Your task to perform on an android device: empty trash in the gmail app Image 0: 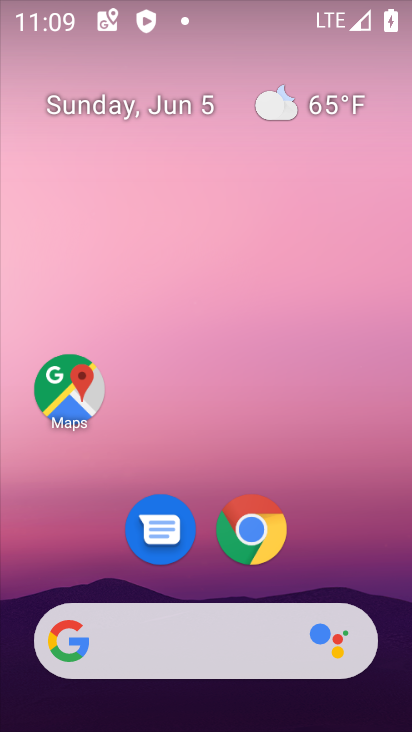
Step 0: drag from (263, 724) to (356, 22)
Your task to perform on an android device: empty trash in the gmail app Image 1: 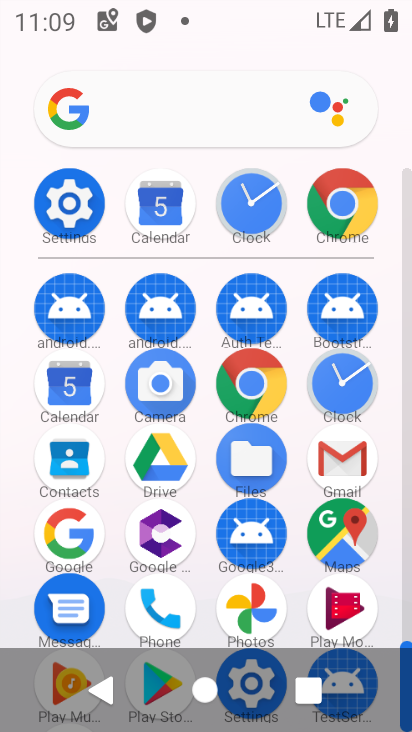
Step 1: click (349, 459)
Your task to perform on an android device: empty trash in the gmail app Image 2: 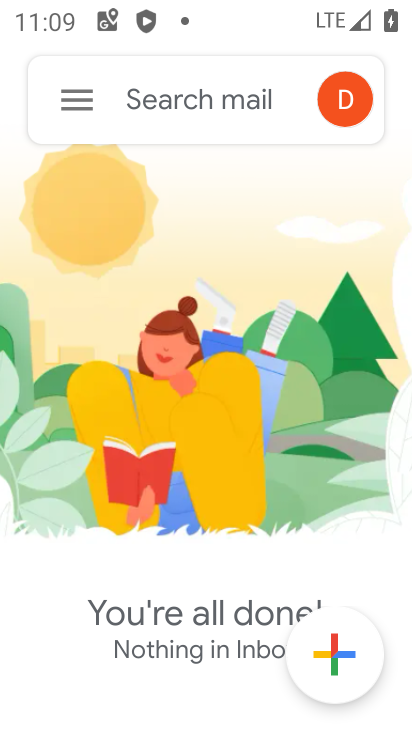
Step 2: click (78, 102)
Your task to perform on an android device: empty trash in the gmail app Image 3: 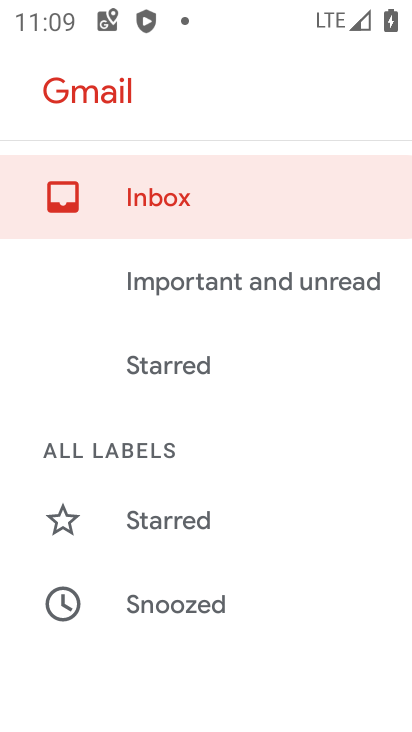
Step 3: drag from (261, 276) to (295, 724)
Your task to perform on an android device: empty trash in the gmail app Image 4: 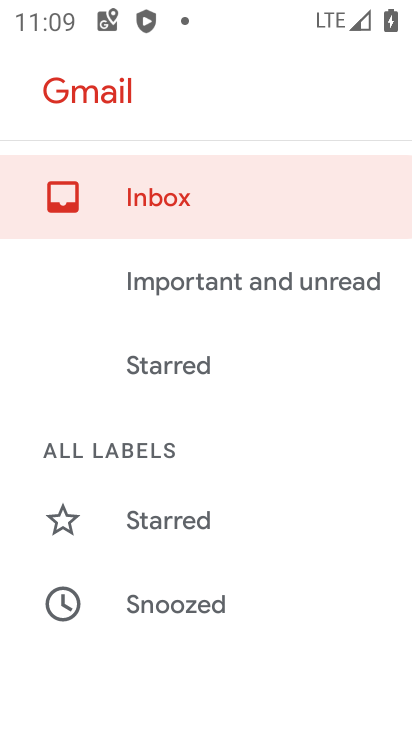
Step 4: drag from (299, 543) to (248, 46)
Your task to perform on an android device: empty trash in the gmail app Image 5: 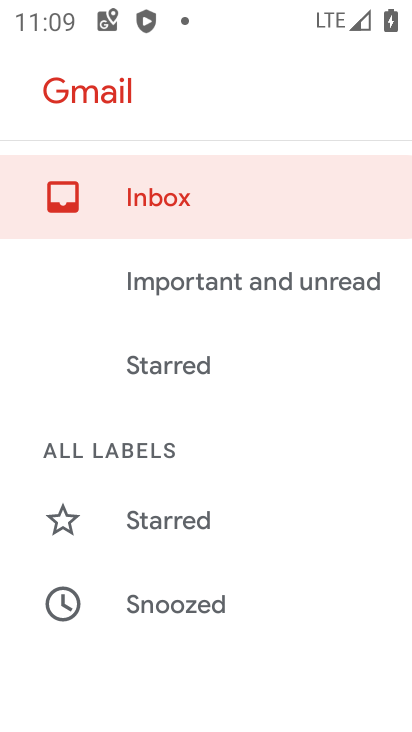
Step 5: drag from (234, 592) to (275, 11)
Your task to perform on an android device: empty trash in the gmail app Image 6: 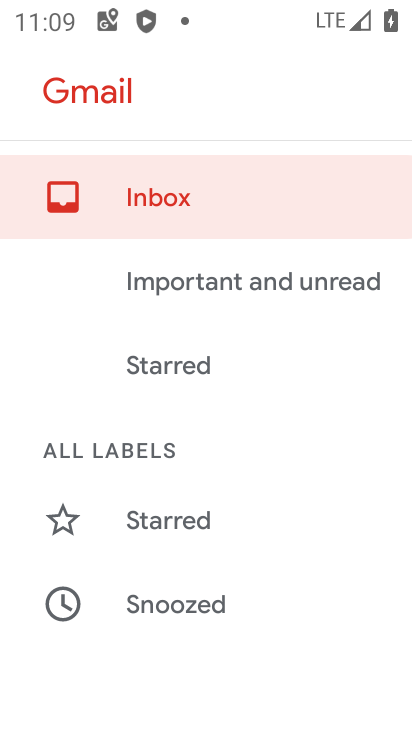
Step 6: drag from (160, 551) to (239, 39)
Your task to perform on an android device: empty trash in the gmail app Image 7: 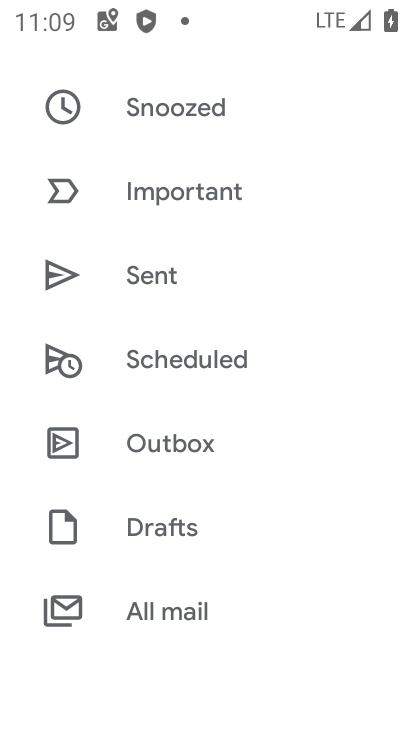
Step 7: drag from (192, 548) to (288, 9)
Your task to perform on an android device: empty trash in the gmail app Image 8: 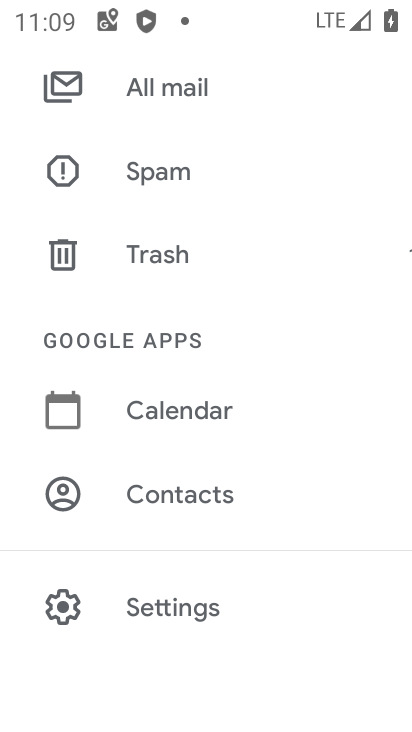
Step 8: click (208, 245)
Your task to perform on an android device: empty trash in the gmail app Image 9: 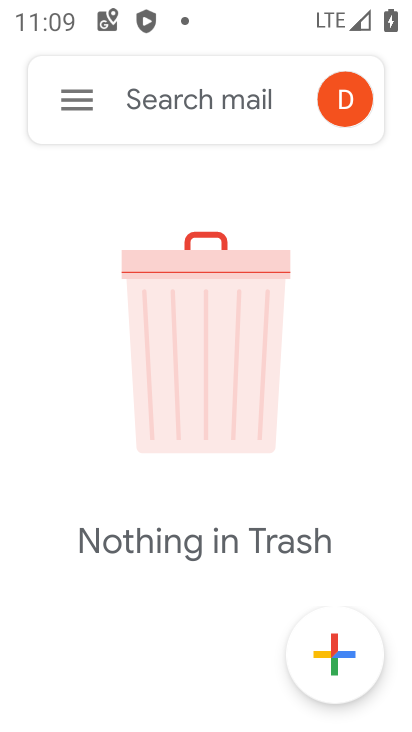
Step 9: task complete